Your task to perform on an android device: Open Chrome and go to settings Image 0: 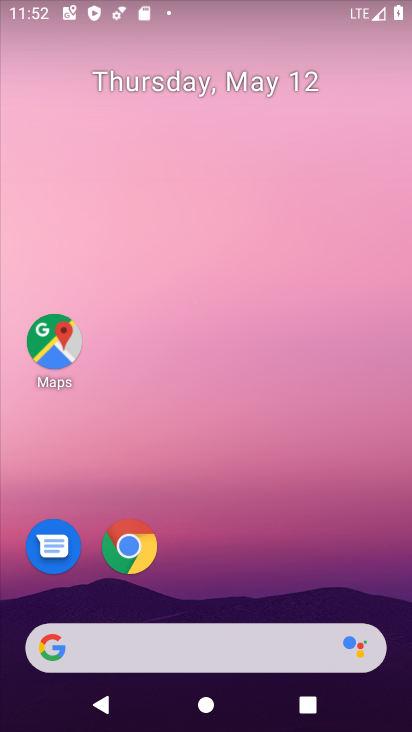
Step 0: click (130, 544)
Your task to perform on an android device: Open Chrome and go to settings Image 1: 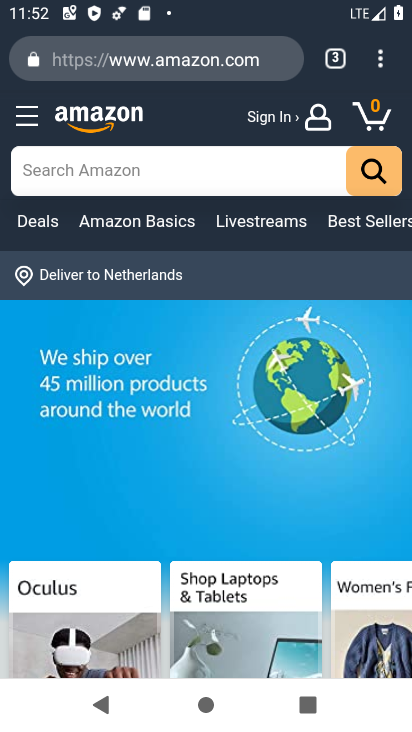
Step 1: click (386, 63)
Your task to perform on an android device: Open Chrome and go to settings Image 2: 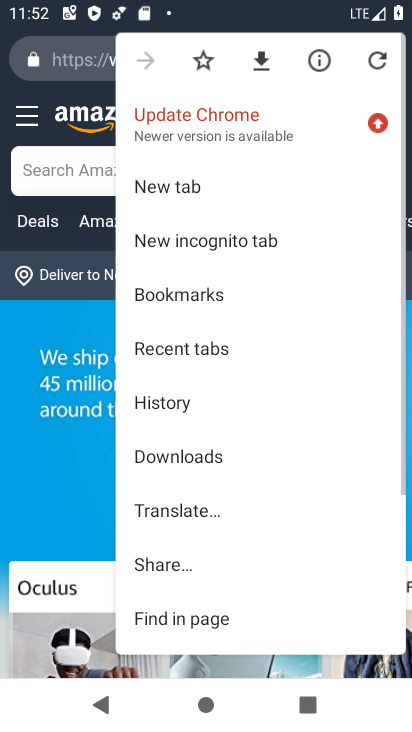
Step 2: drag from (236, 592) to (241, 269)
Your task to perform on an android device: Open Chrome and go to settings Image 3: 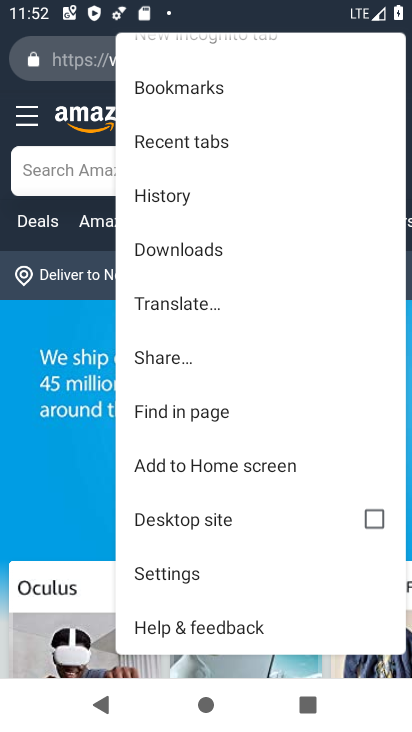
Step 3: click (166, 569)
Your task to perform on an android device: Open Chrome and go to settings Image 4: 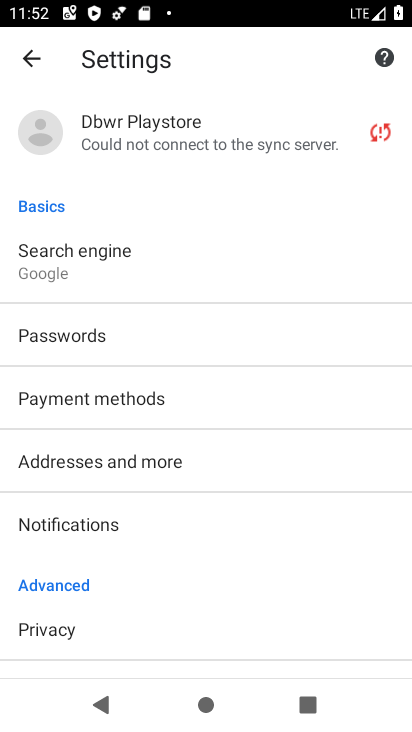
Step 4: task complete